Your task to perform on an android device: set default search engine in the chrome app Image 0: 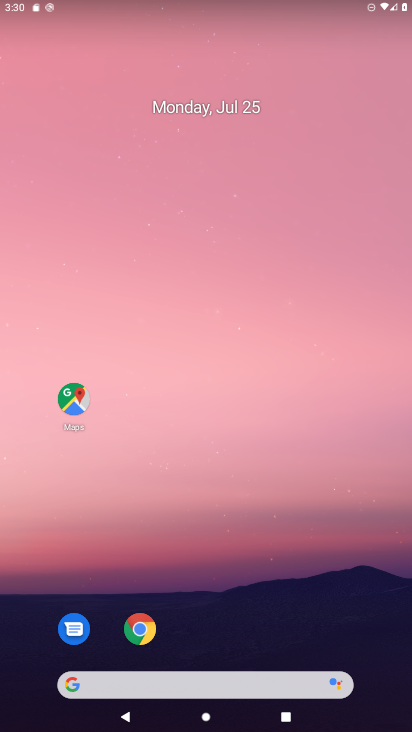
Step 0: click (145, 633)
Your task to perform on an android device: set default search engine in the chrome app Image 1: 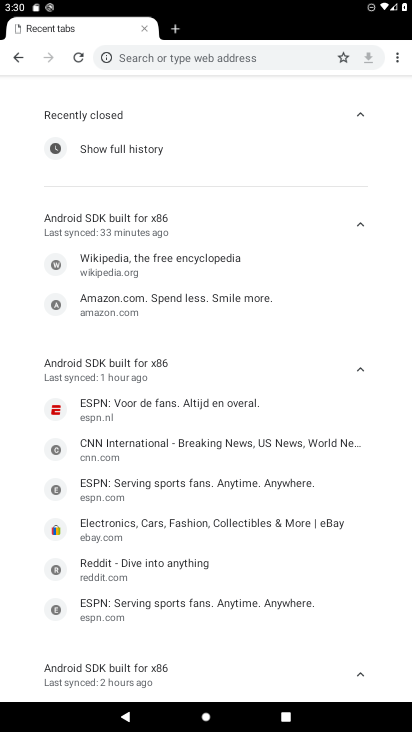
Step 1: click (389, 56)
Your task to perform on an android device: set default search engine in the chrome app Image 2: 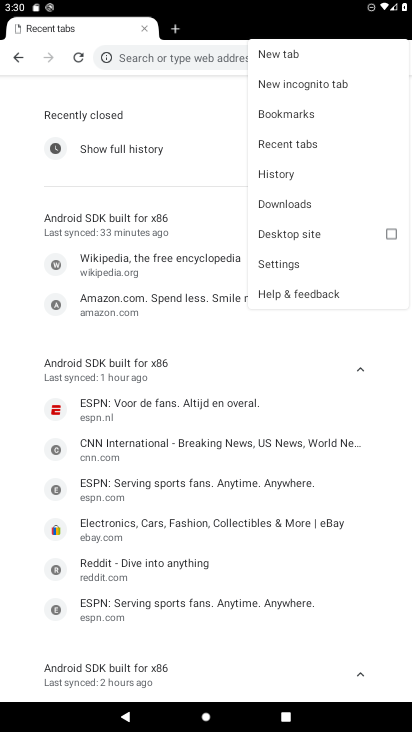
Step 2: click (277, 270)
Your task to perform on an android device: set default search engine in the chrome app Image 3: 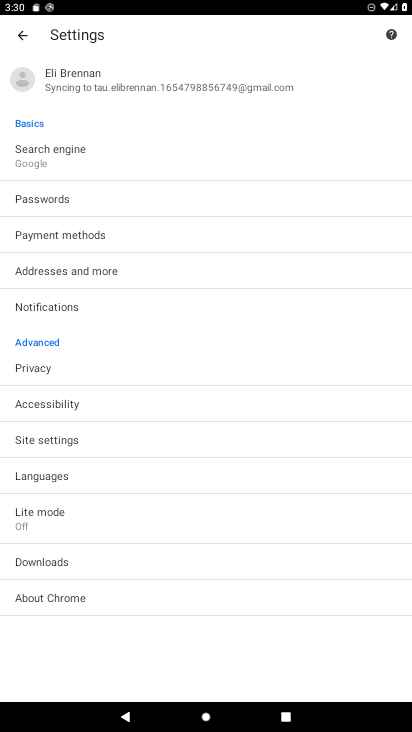
Step 3: click (24, 170)
Your task to perform on an android device: set default search engine in the chrome app Image 4: 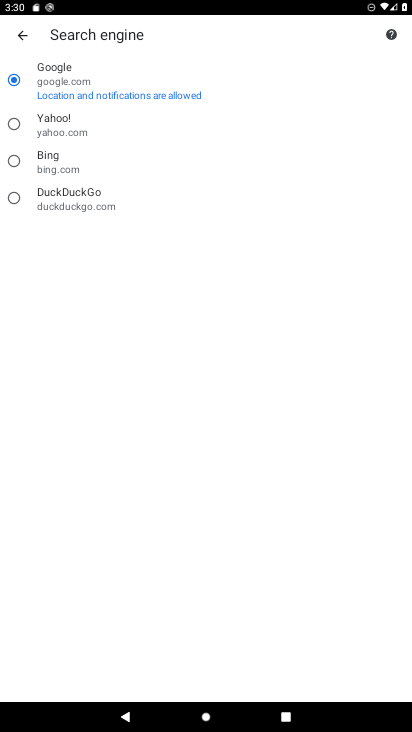
Step 4: click (68, 127)
Your task to perform on an android device: set default search engine in the chrome app Image 5: 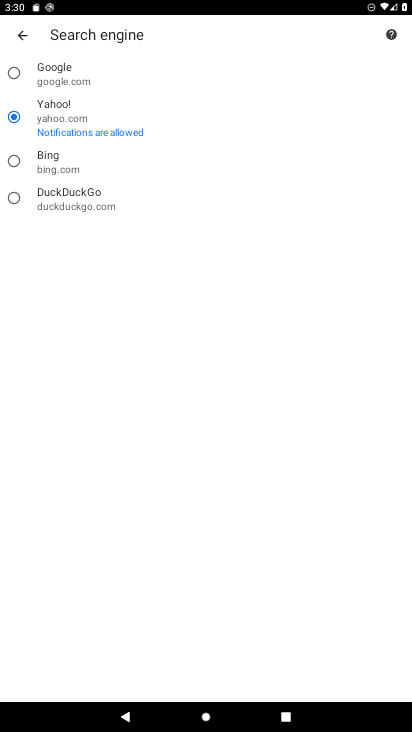
Step 5: task complete